Your task to perform on an android device: Open Youtube and go to "Your channel" Image 0: 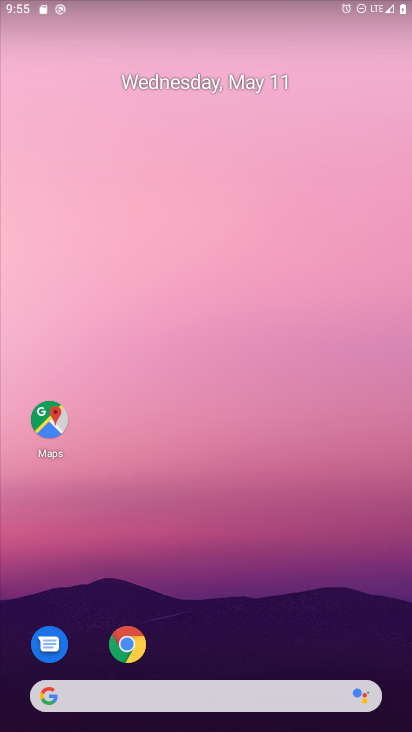
Step 0: drag from (294, 577) to (194, 43)
Your task to perform on an android device: Open Youtube and go to "Your channel" Image 1: 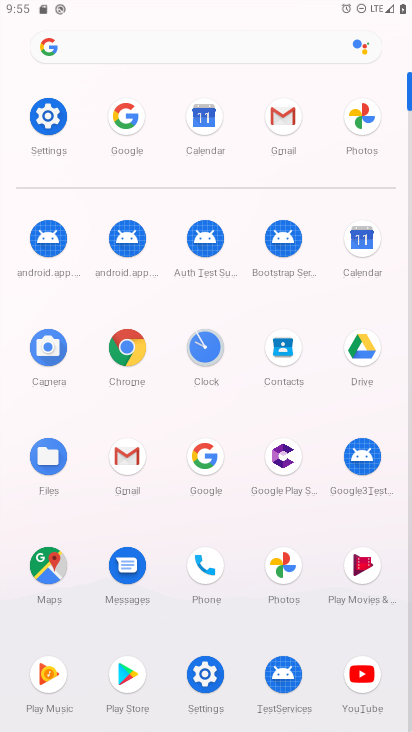
Step 1: click (360, 672)
Your task to perform on an android device: Open Youtube and go to "Your channel" Image 2: 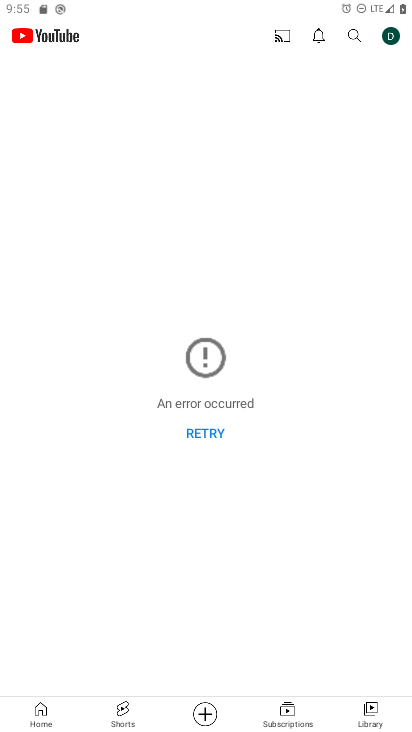
Step 2: click (392, 28)
Your task to perform on an android device: Open Youtube and go to "Your channel" Image 3: 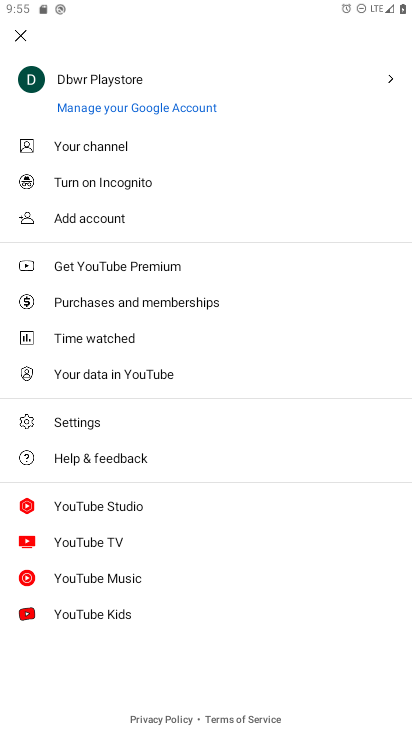
Step 3: click (93, 145)
Your task to perform on an android device: Open Youtube and go to "Your channel" Image 4: 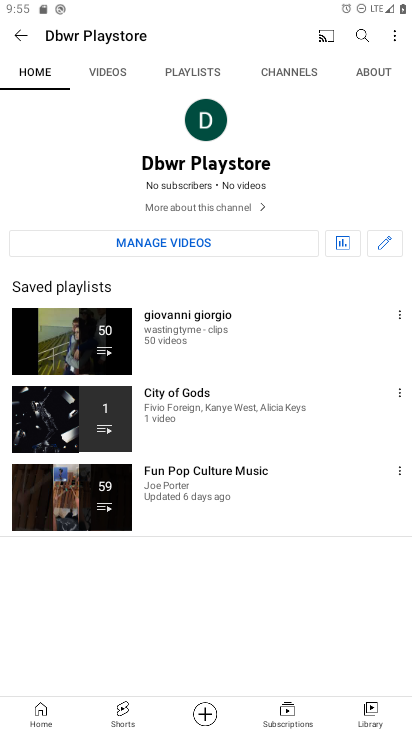
Step 4: task complete